Your task to perform on an android device: Go to settings Image 0: 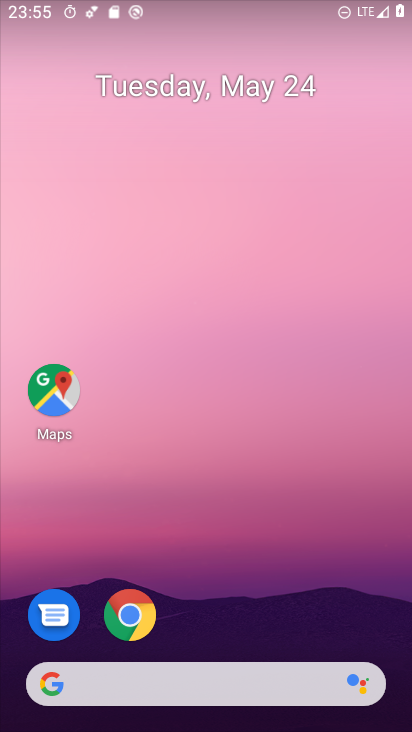
Step 0: press home button
Your task to perform on an android device: Go to settings Image 1: 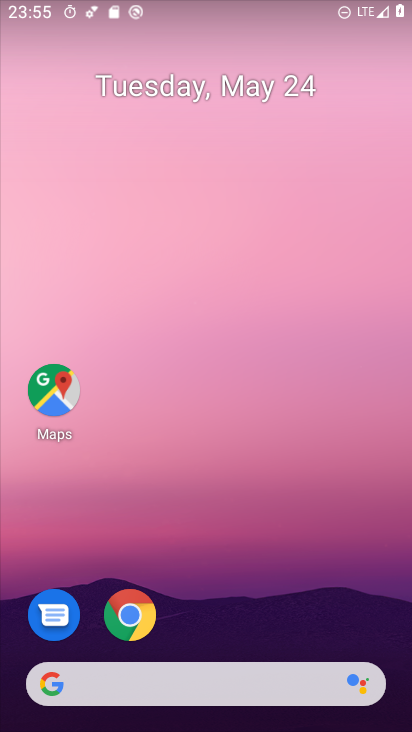
Step 1: drag from (263, 701) to (408, 148)
Your task to perform on an android device: Go to settings Image 2: 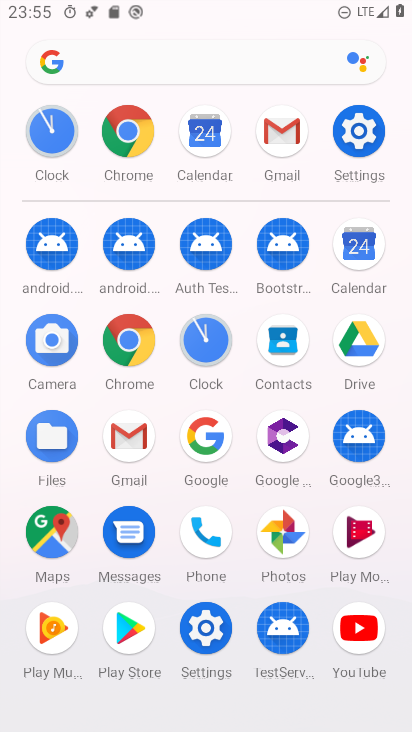
Step 2: click (382, 143)
Your task to perform on an android device: Go to settings Image 3: 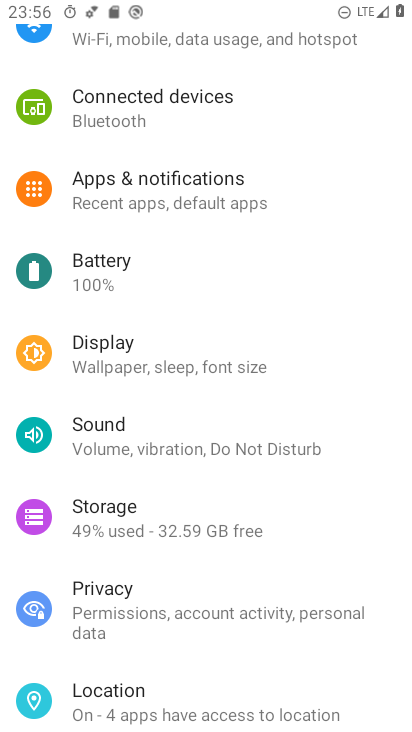
Step 3: task complete